Your task to perform on an android device: all mails in gmail Image 0: 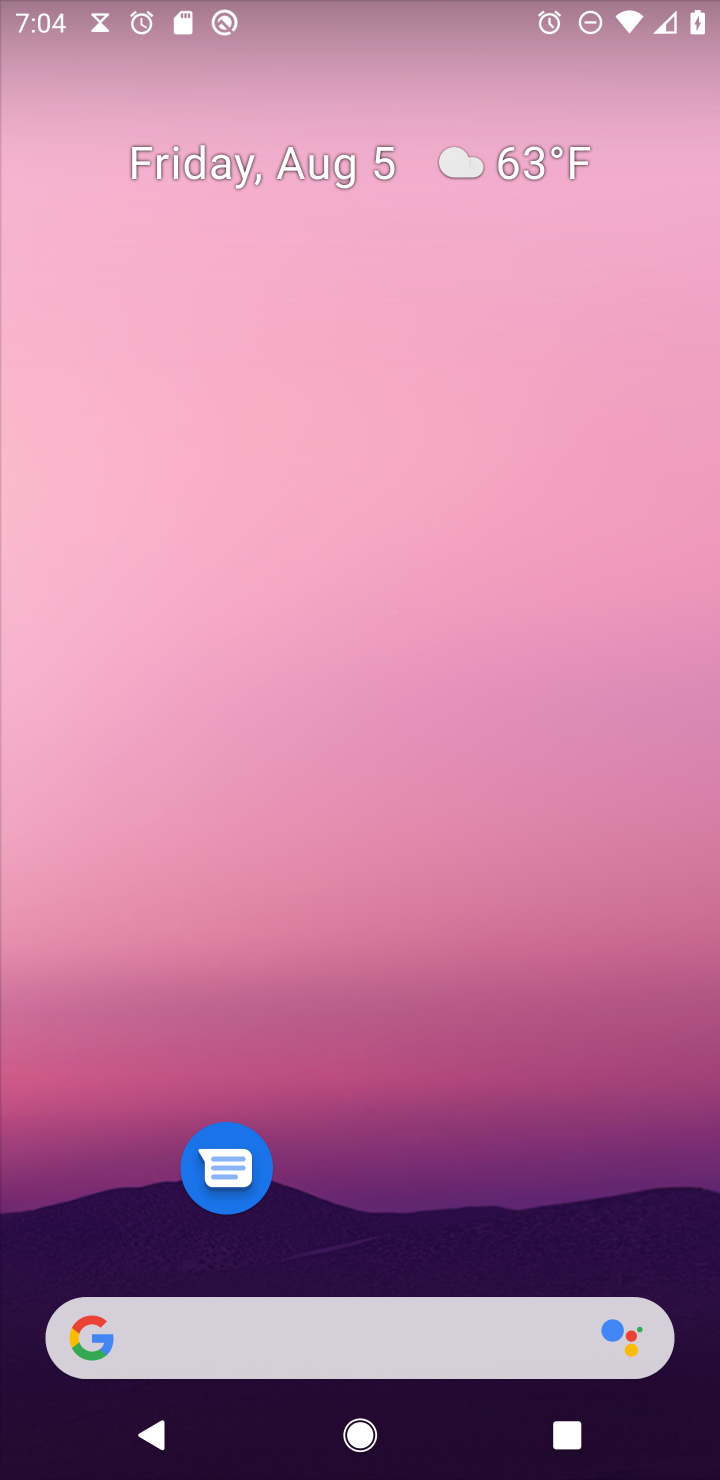
Step 0: press home button
Your task to perform on an android device: all mails in gmail Image 1: 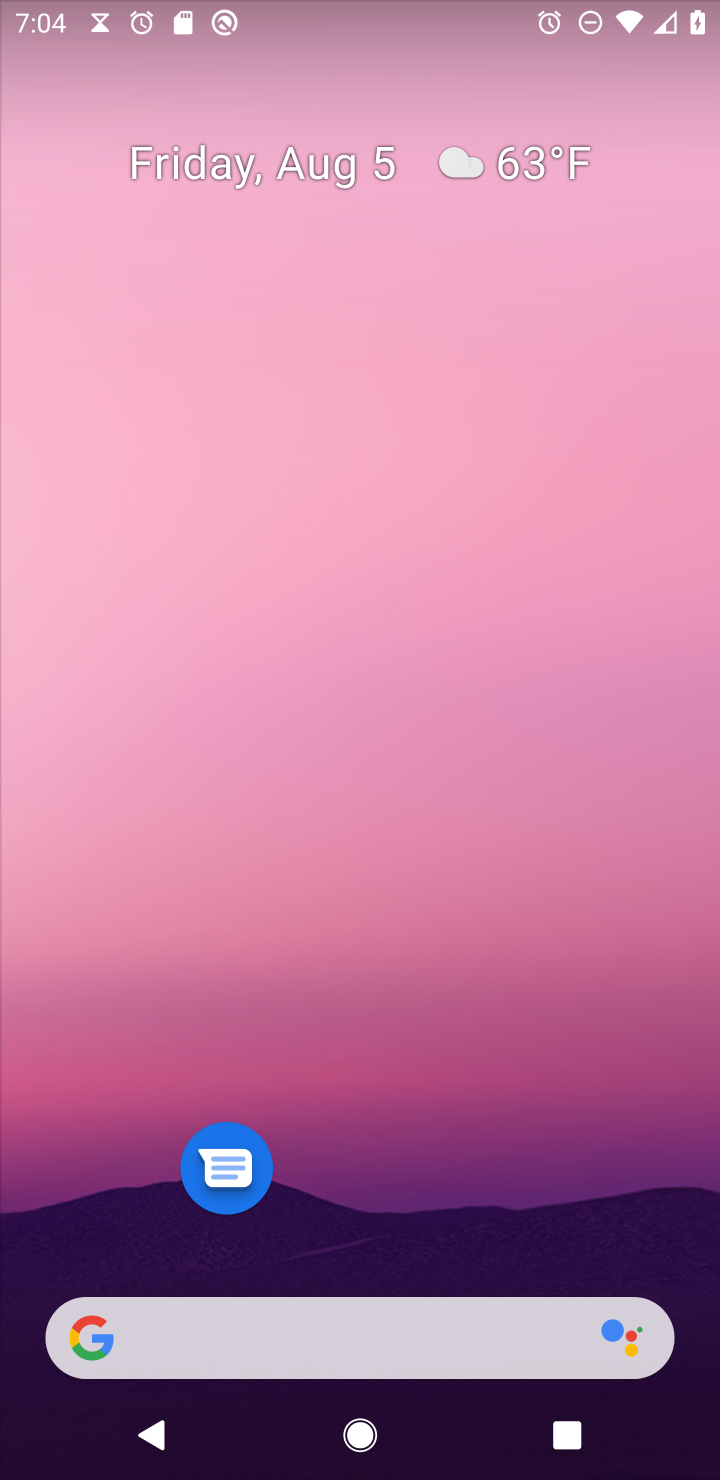
Step 1: drag from (550, 669) to (688, 218)
Your task to perform on an android device: all mails in gmail Image 2: 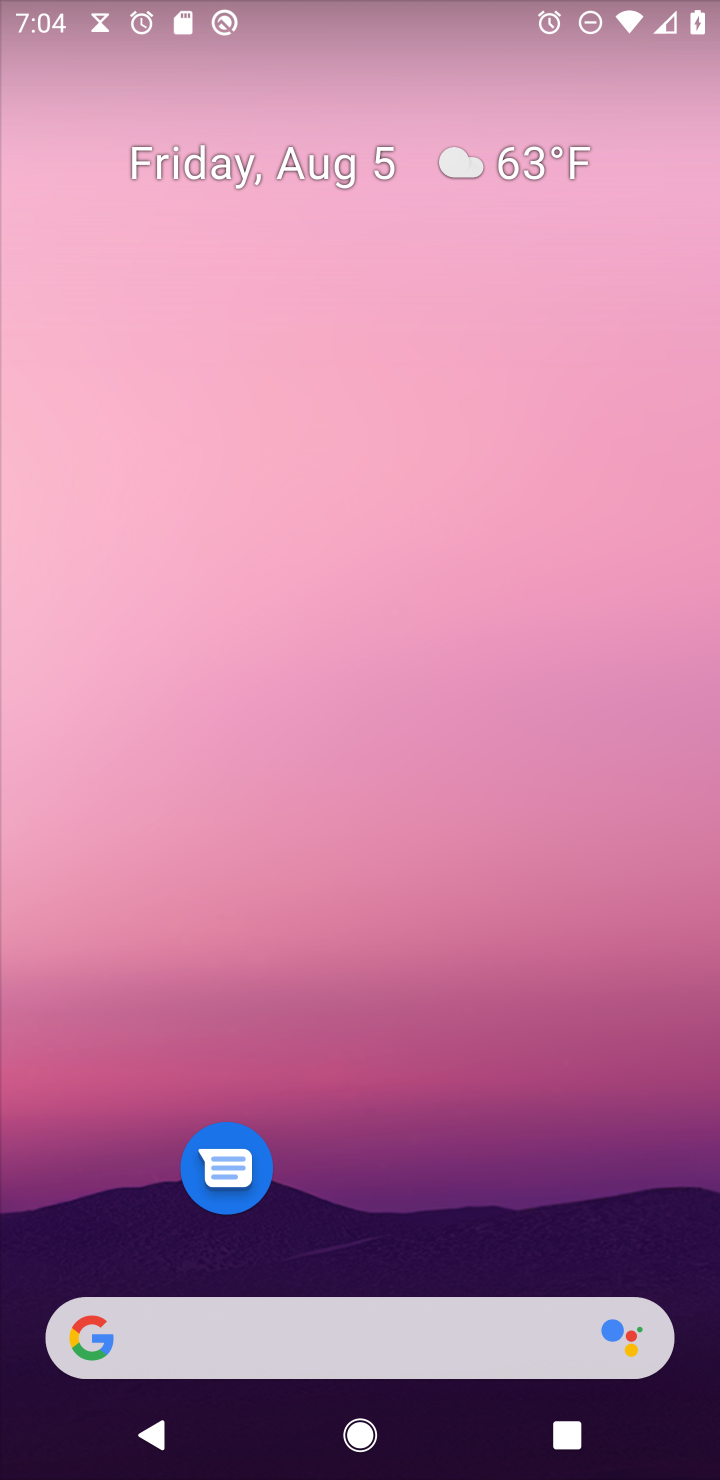
Step 2: drag from (393, 1259) to (370, 210)
Your task to perform on an android device: all mails in gmail Image 3: 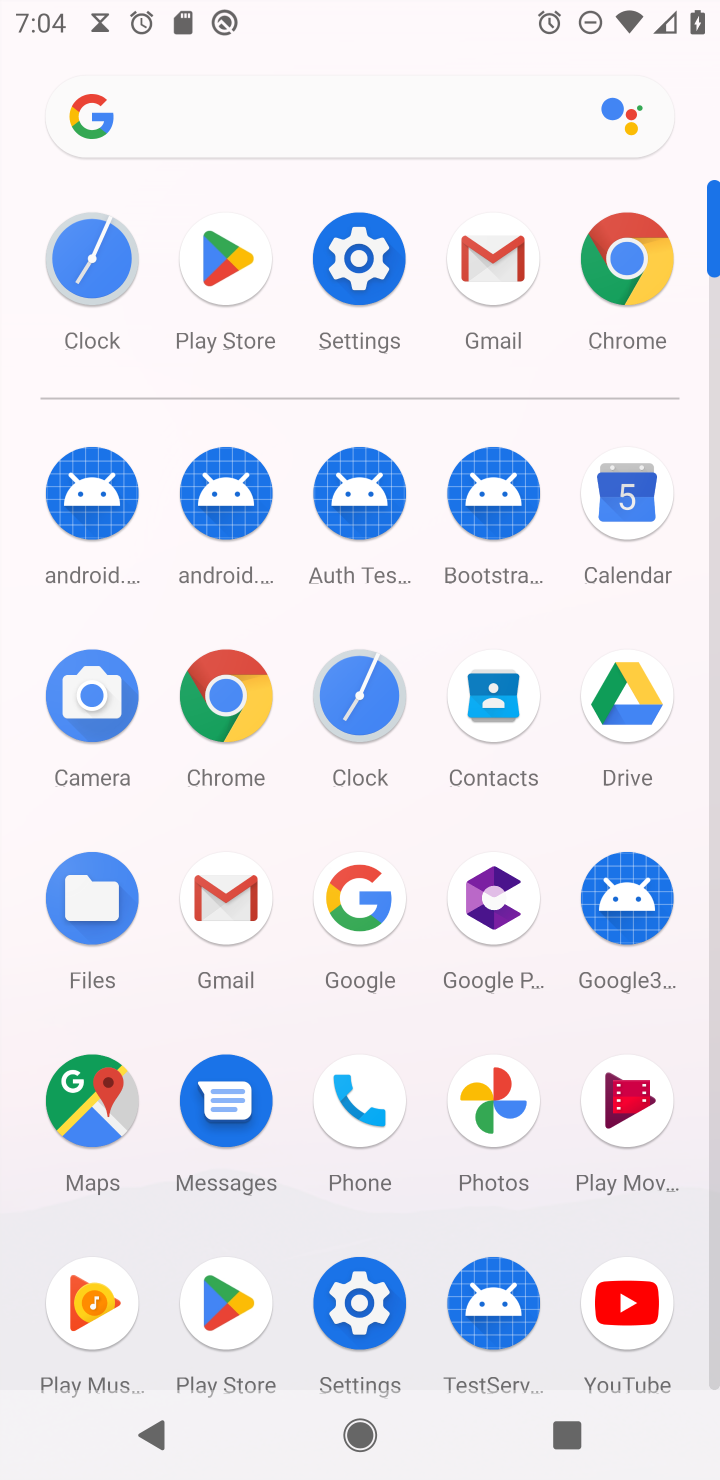
Step 3: click (480, 277)
Your task to perform on an android device: all mails in gmail Image 4: 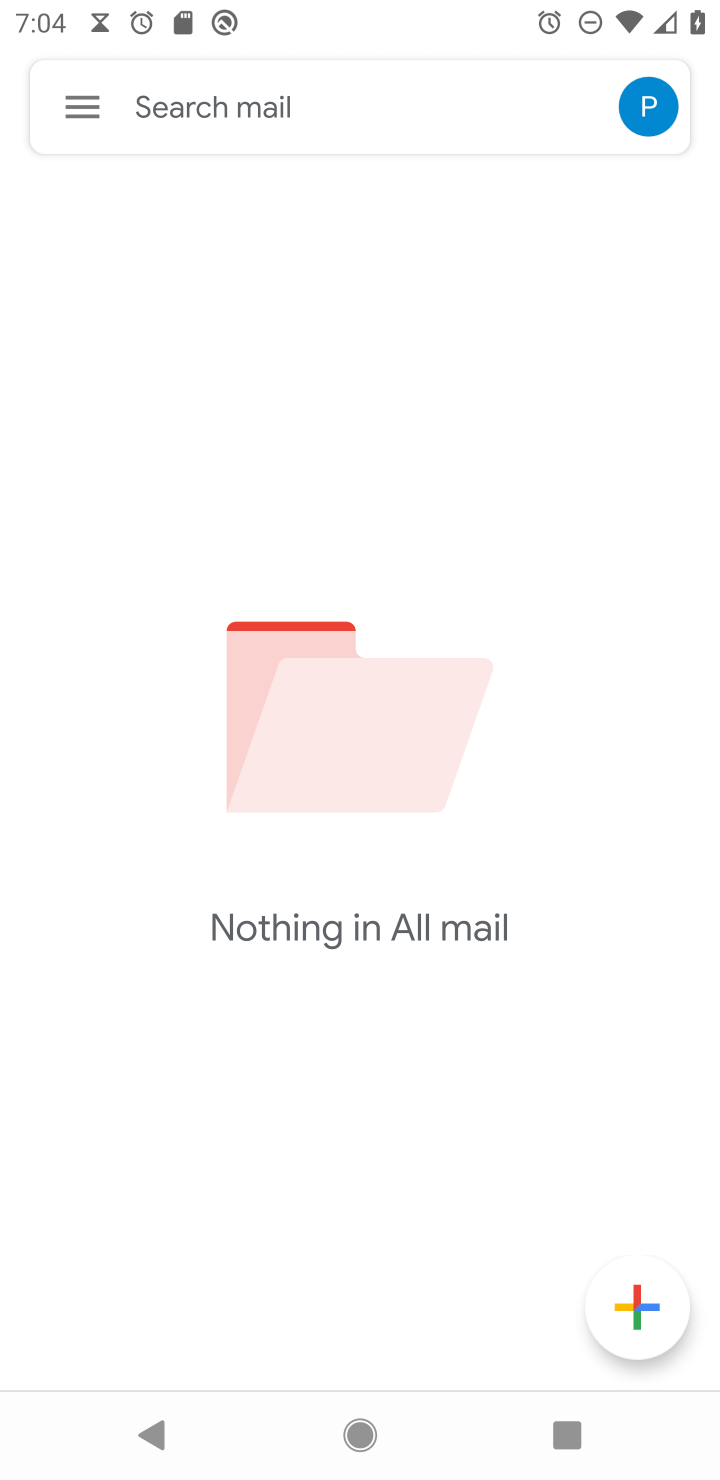
Step 4: click (76, 85)
Your task to perform on an android device: all mails in gmail Image 5: 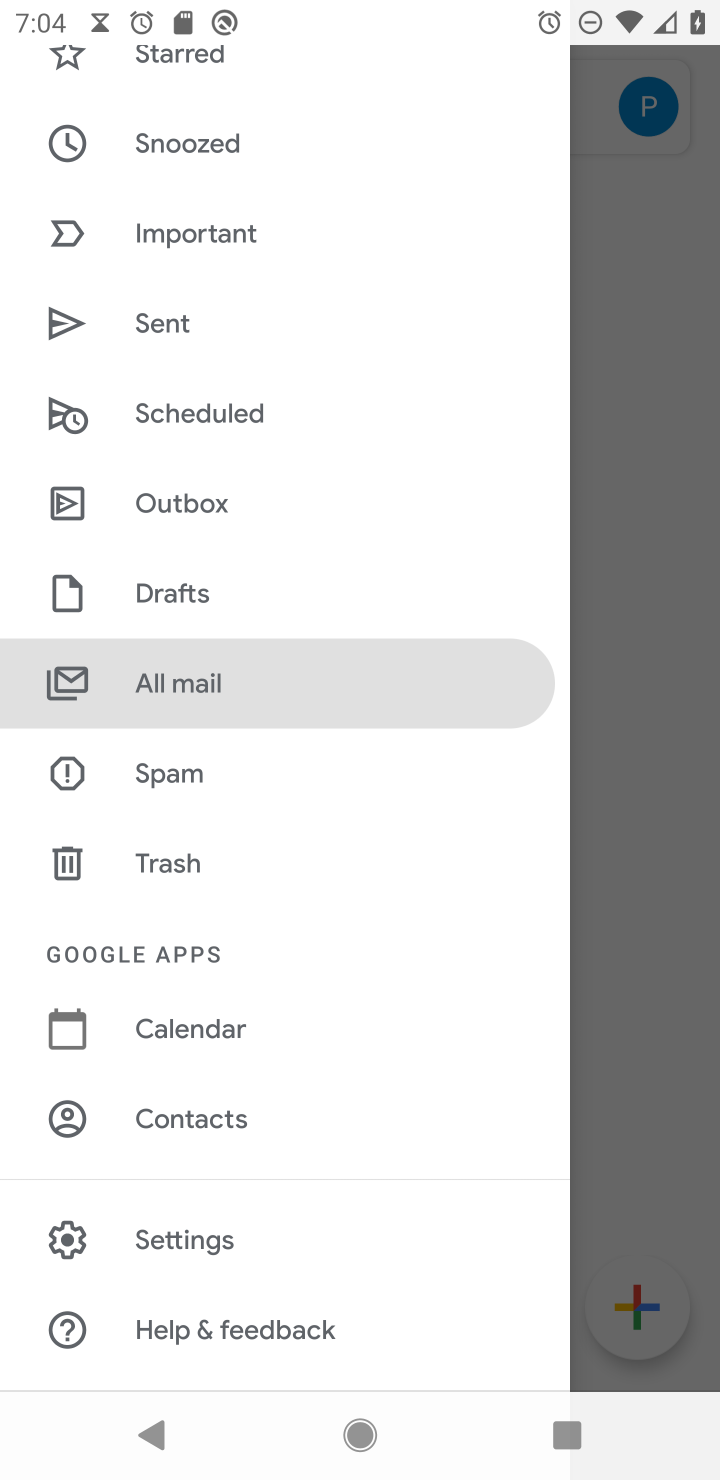
Step 5: click (286, 672)
Your task to perform on an android device: all mails in gmail Image 6: 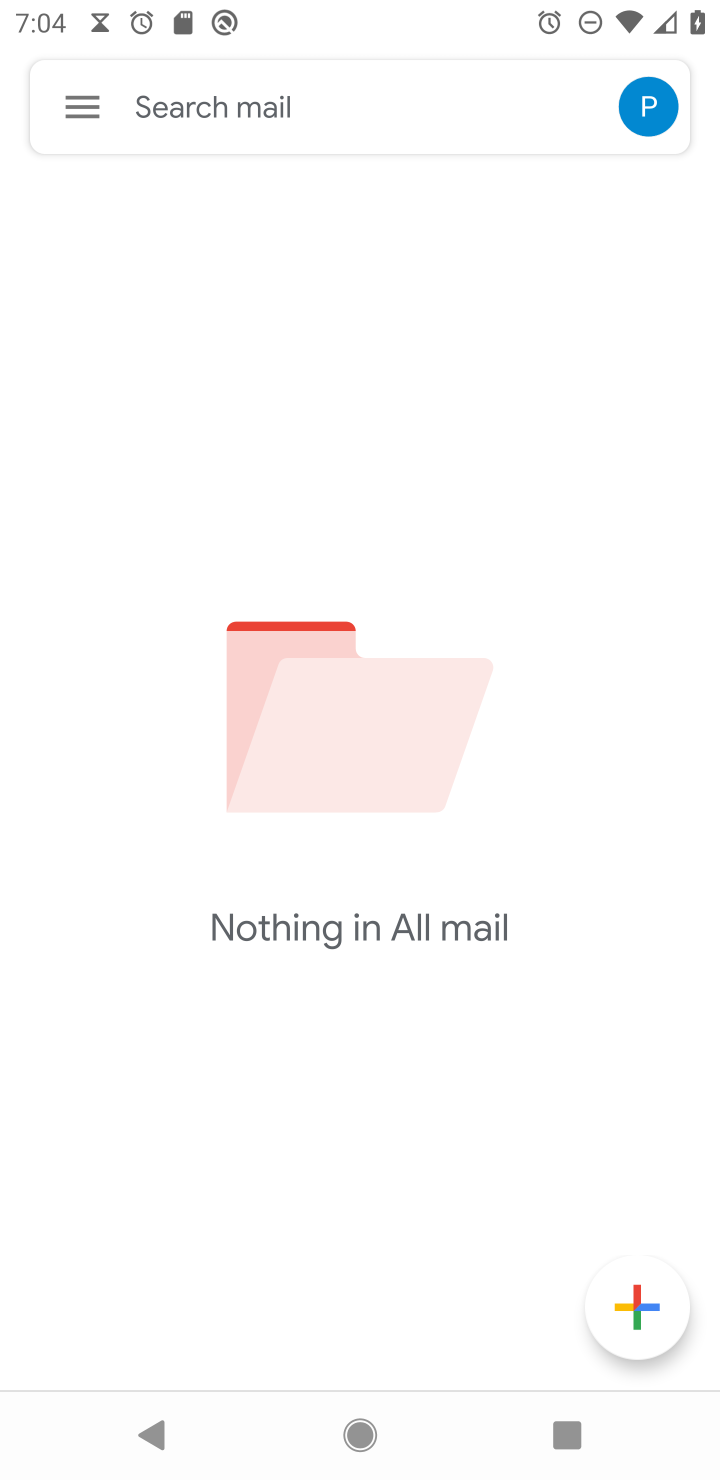
Step 6: task complete